Your task to perform on an android device: Search for vegetarian restaurants on Maps Image 0: 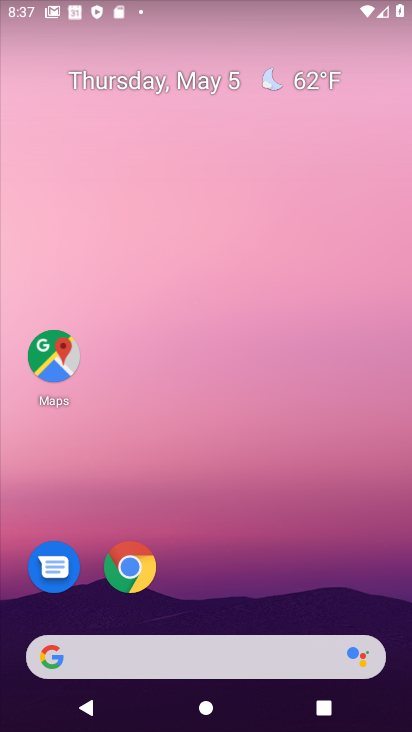
Step 0: drag from (223, 725) to (199, 259)
Your task to perform on an android device: Search for vegetarian restaurants on Maps Image 1: 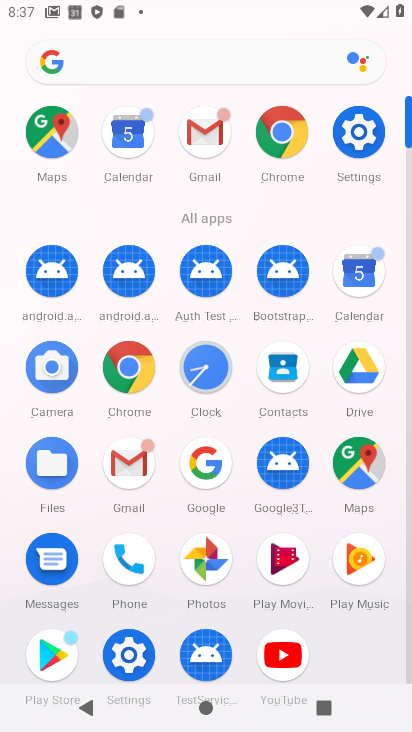
Step 1: click (356, 458)
Your task to perform on an android device: Search for vegetarian restaurants on Maps Image 2: 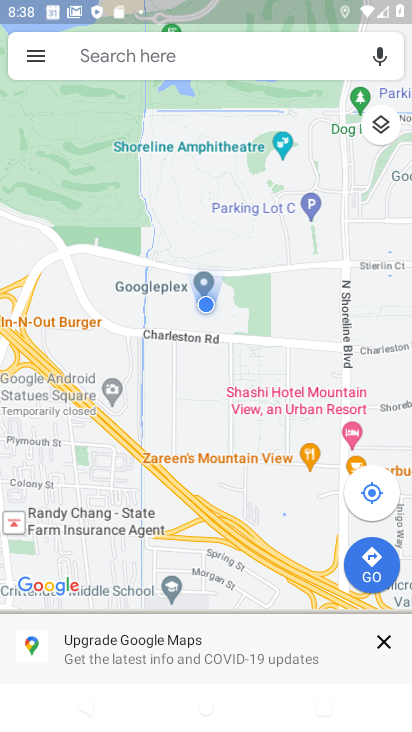
Step 2: click (176, 60)
Your task to perform on an android device: Search for vegetarian restaurants on Maps Image 3: 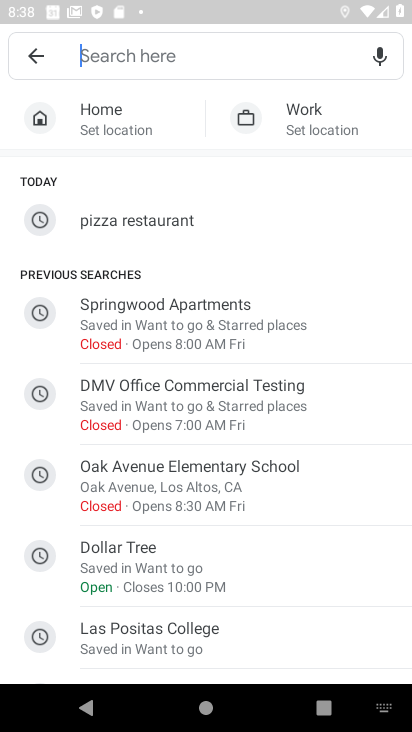
Step 3: type "vegetarian restaurants"
Your task to perform on an android device: Search for vegetarian restaurants on Maps Image 4: 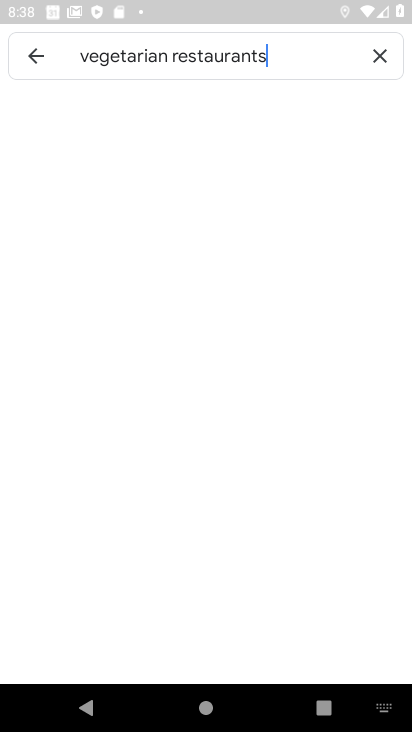
Step 4: type ""
Your task to perform on an android device: Search for vegetarian restaurants on Maps Image 5: 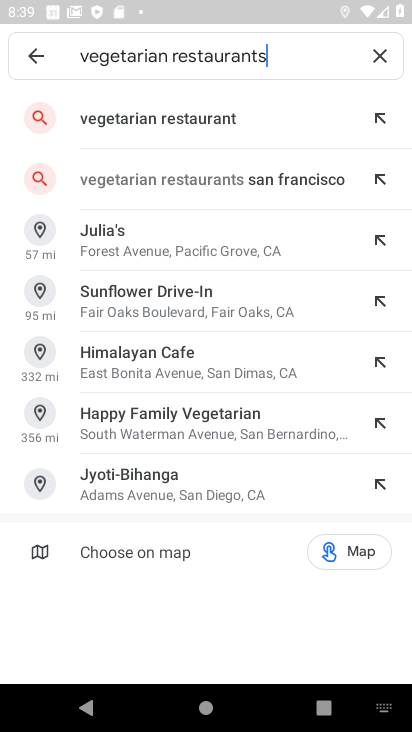
Step 5: click (163, 117)
Your task to perform on an android device: Search for vegetarian restaurants on Maps Image 6: 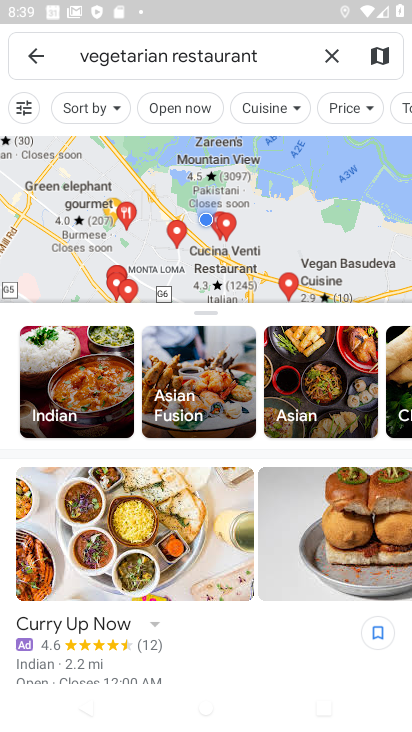
Step 6: task complete